Your task to perform on an android device: check the backup settings in the google photos Image 0: 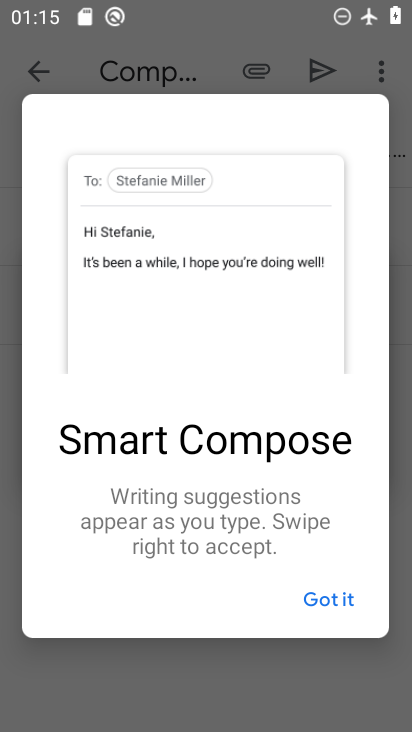
Step 0: press home button
Your task to perform on an android device: check the backup settings in the google photos Image 1: 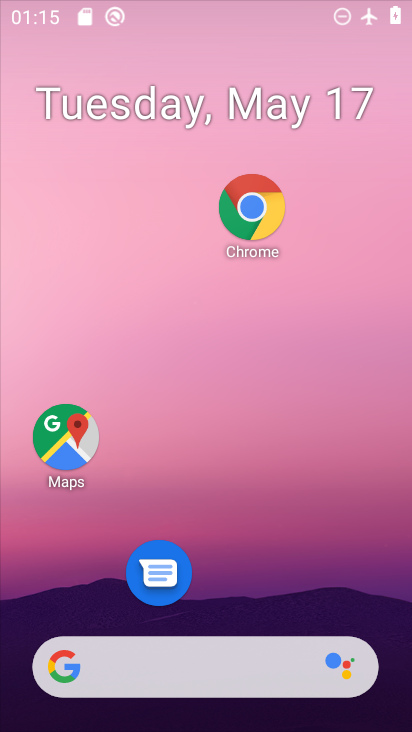
Step 1: drag from (253, 653) to (230, 34)
Your task to perform on an android device: check the backup settings in the google photos Image 2: 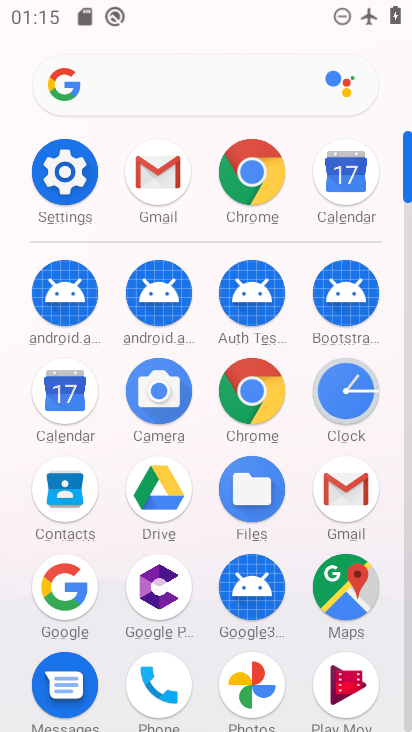
Step 2: click (249, 686)
Your task to perform on an android device: check the backup settings in the google photos Image 3: 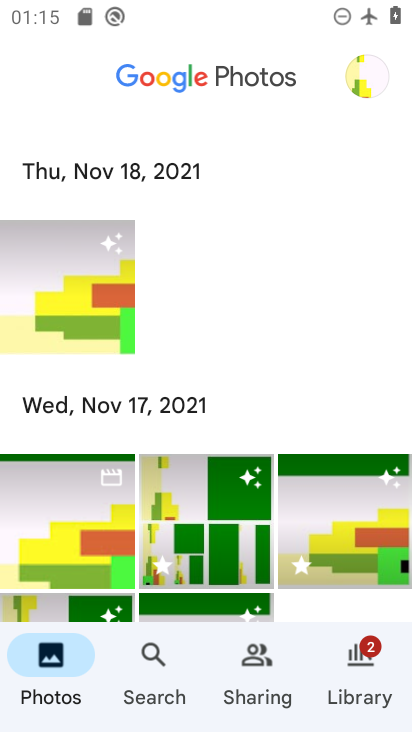
Step 3: click (358, 78)
Your task to perform on an android device: check the backup settings in the google photos Image 4: 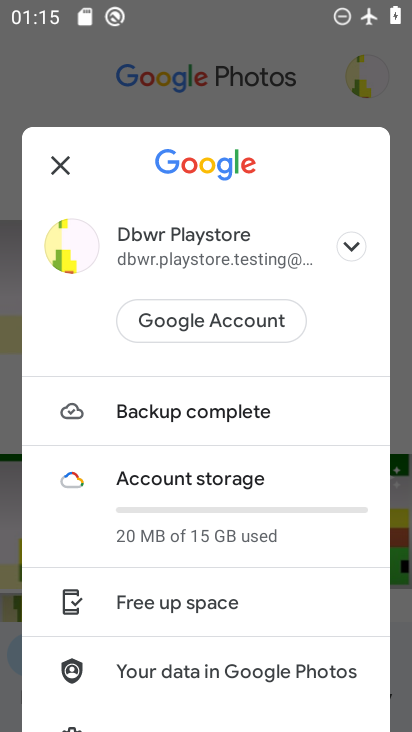
Step 4: drag from (251, 697) to (252, 197)
Your task to perform on an android device: check the backup settings in the google photos Image 5: 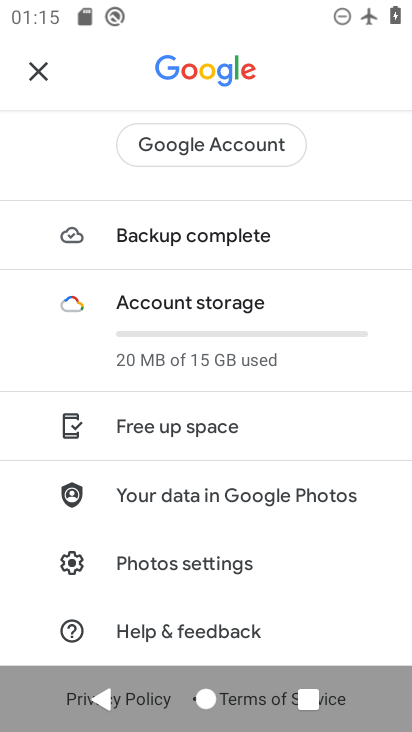
Step 5: click (180, 567)
Your task to perform on an android device: check the backup settings in the google photos Image 6: 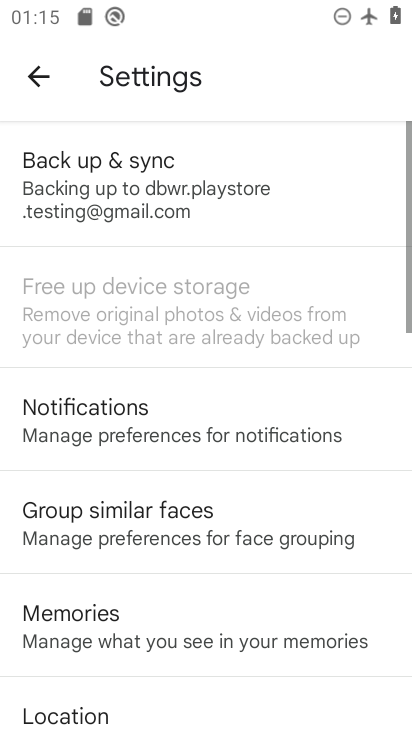
Step 6: click (283, 208)
Your task to perform on an android device: check the backup settings in the google photos Image 7: 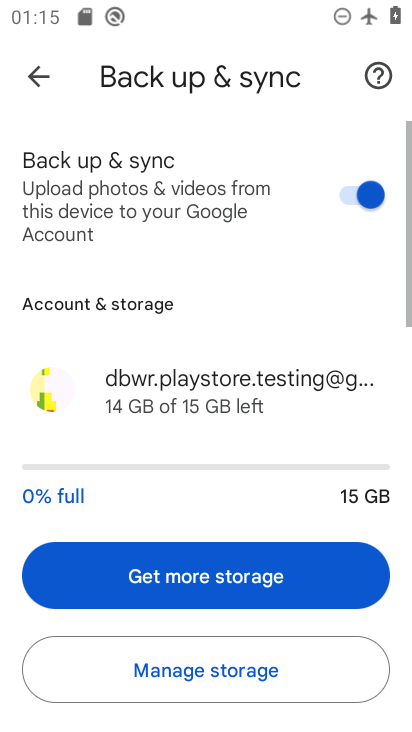
Step 7: task complete